Your task to perform on an android device: When is my next appointment? Image 0: 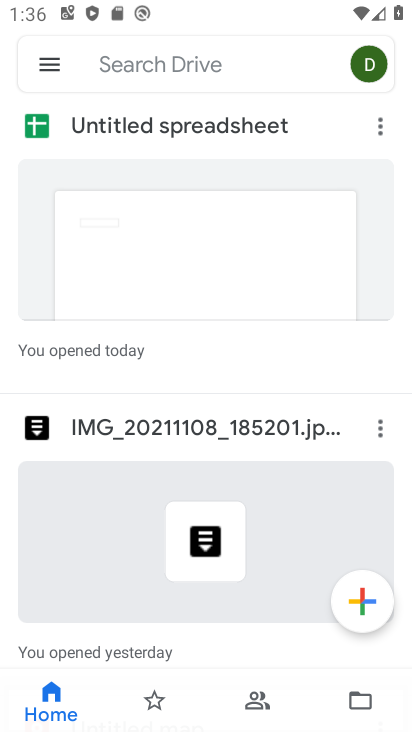
Step 0: press home button
Your task to perform on an android device: When is my next appointment? Image 1: 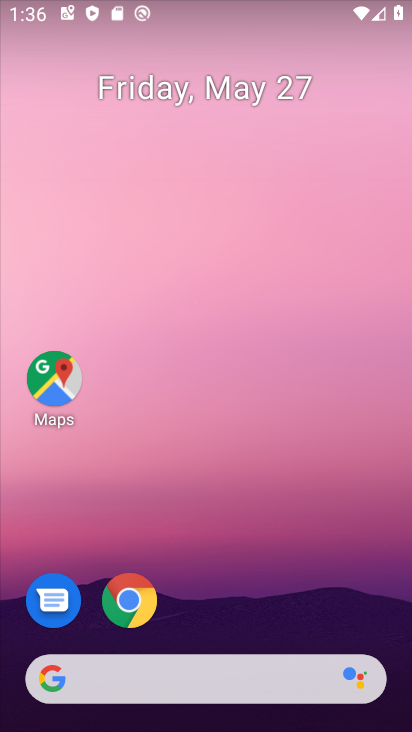
Step 1: drag from (241, 723) to (235, 14)
Your task to perform on an android device: When is my next appointment? Image 2: 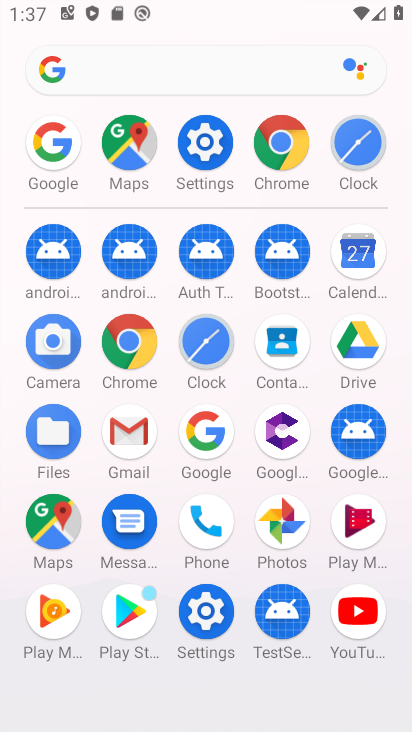
Step 2: click (357, 251)
Your task to perform on an android device: When is my next appointment? Image 3: 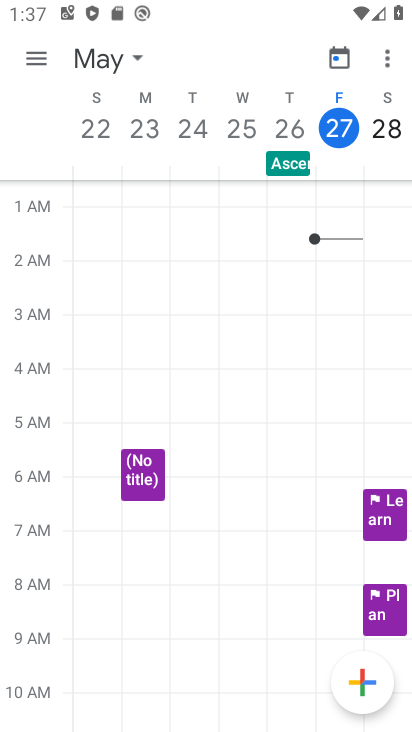
Step 3: click (386, 128)
Your task to perform on an android device: When is my next appointment? Image 4: 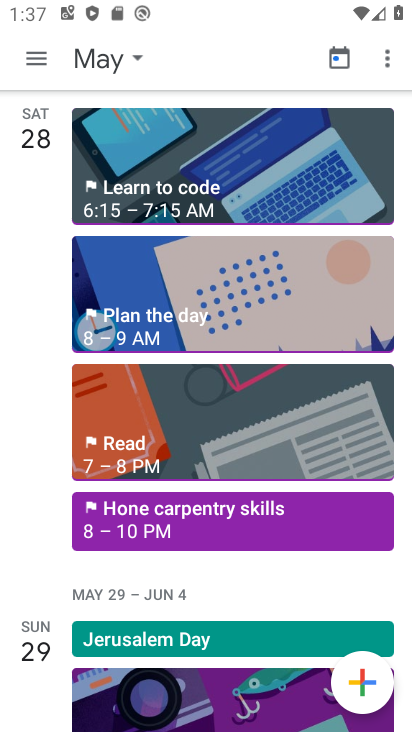
Step 4: task complete